Your task to perform on an android device: turn off improve location accuracy Image 0: 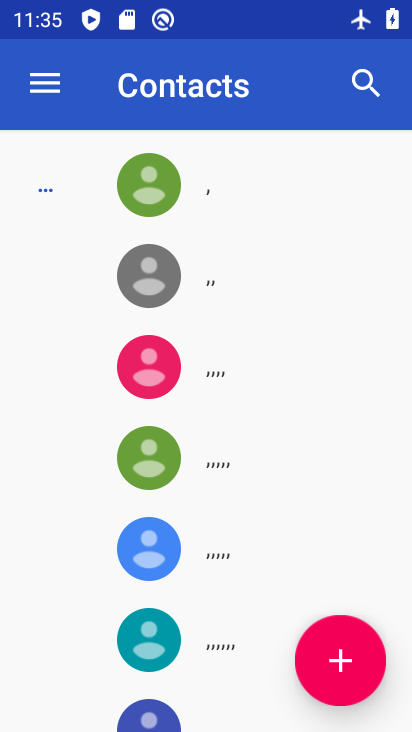
Step 0: press home button
Your task to perform on an android device: turn off improve location accuracy Image 1: 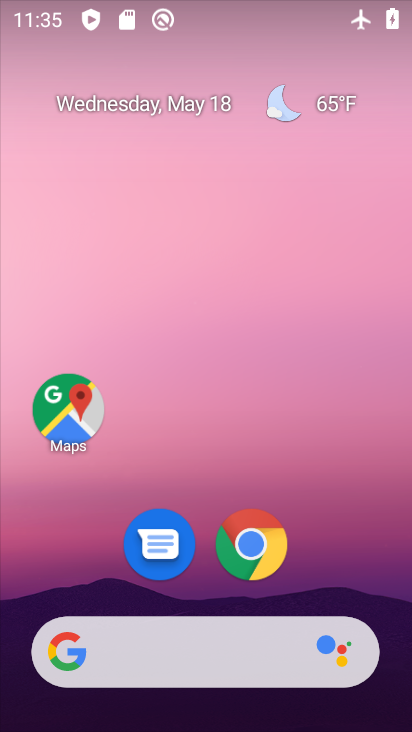
Step 1: drag from (362, 590) to (331, 71)
Your task to perform on an android device: turn off improve location accuracy Image 2: 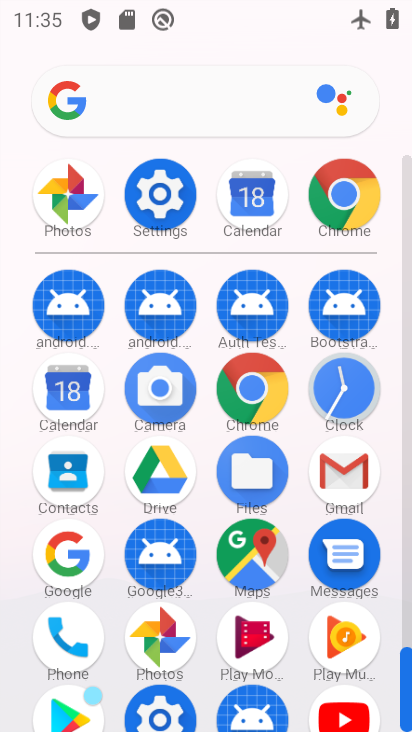
Step 2: click (166, 206)
Your task to perform on an android device: turn off improve location accuracy Image 3: 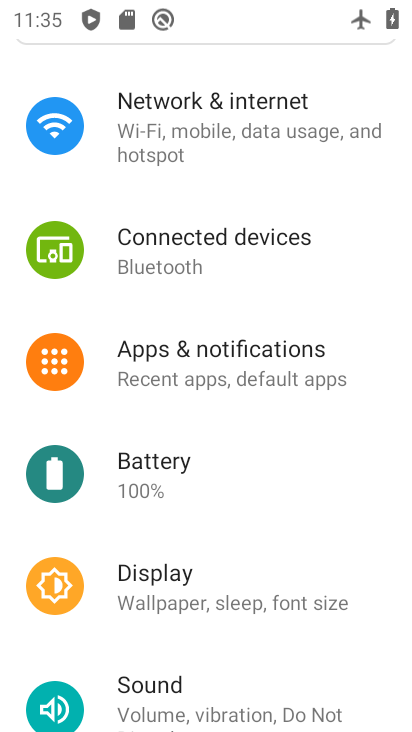
Step 3: drag from (382, 563) to (370, 335)
Your task to perform on an android device: turn off improve location accuracy Image 4: 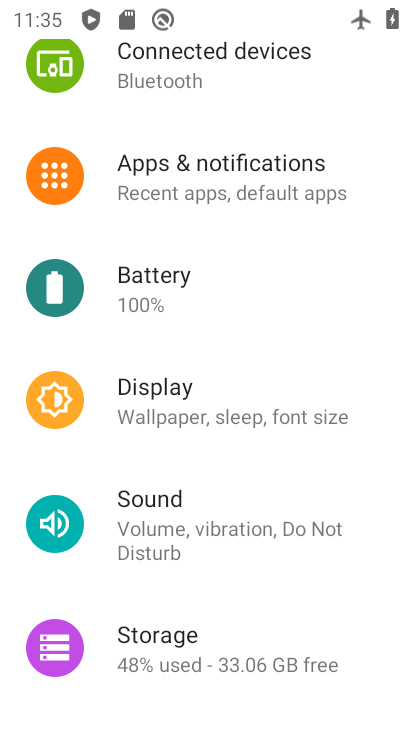
Step 4: drag from (350, 599) to (349, 357)
Your task to perform on an android device: turn off improve location accuracy Image 5: 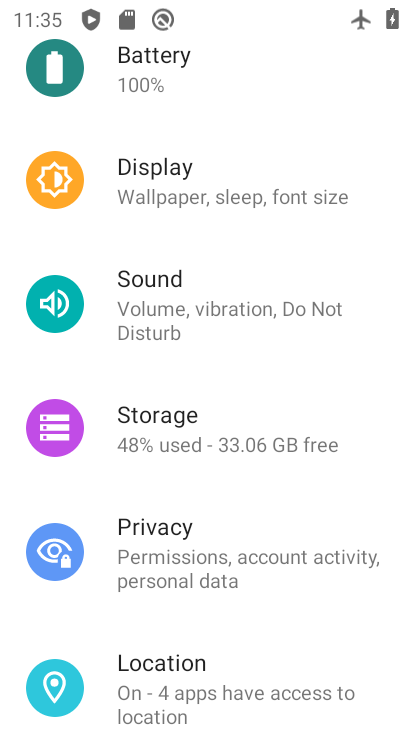
Step 5: drag from (338, 625) to (352, 464)
Your task to perform on an android device: turn off improve location accuracy Image 6: 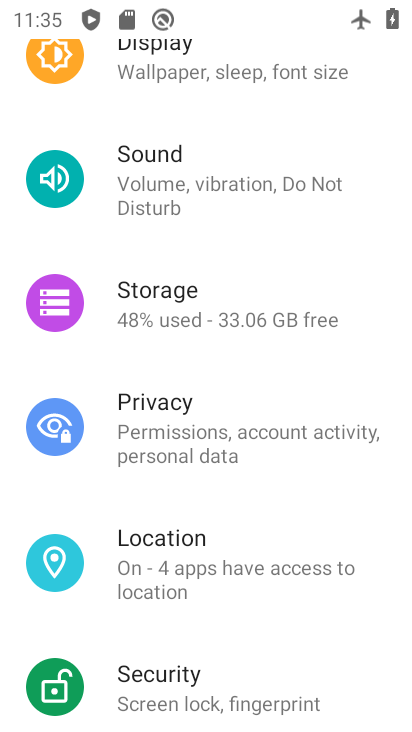
Step 6: drag from (359, 657) to (366, 448)
Your task to perform on an android device: turn off improve location accuracy Image 7: 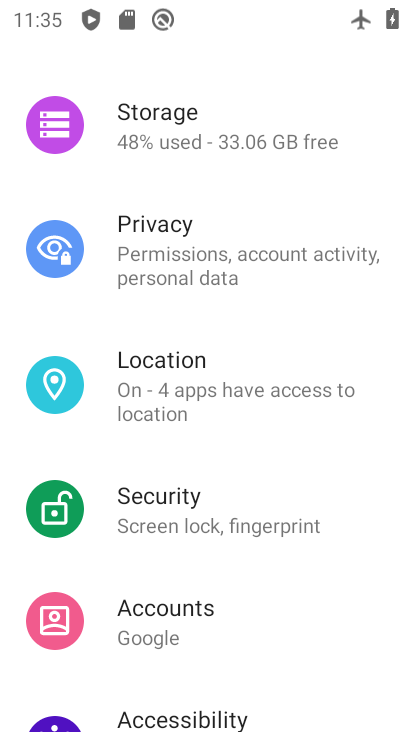
Step 7: click (320, 381)
Your task to perform on an android device: turn off improve location accuracy Image 8: 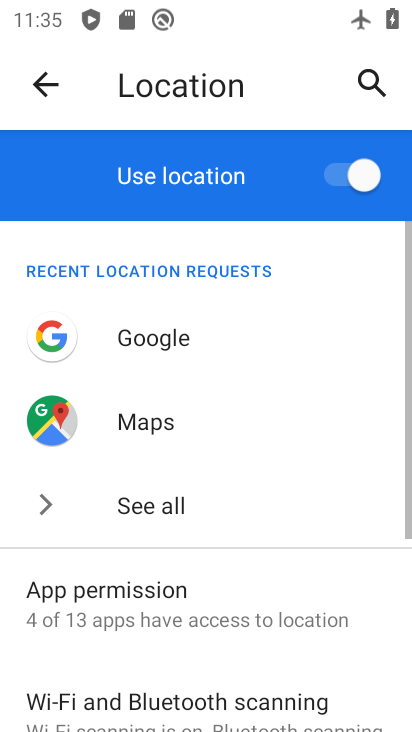
Step 8: drag from (334, 591) to (338, 437)
Your task to perform on an android device: turn off improve location accuracy Image 9: 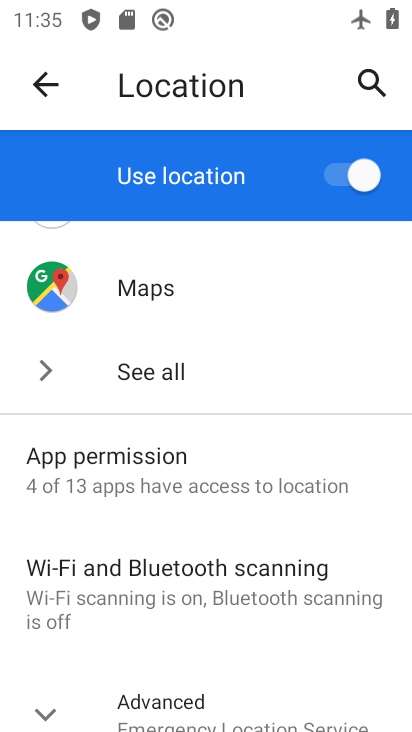
Step 9: drag from (346, 670) to (348, 482)
Your task to perform on an android device: turn off improve location accuracy Image 10: 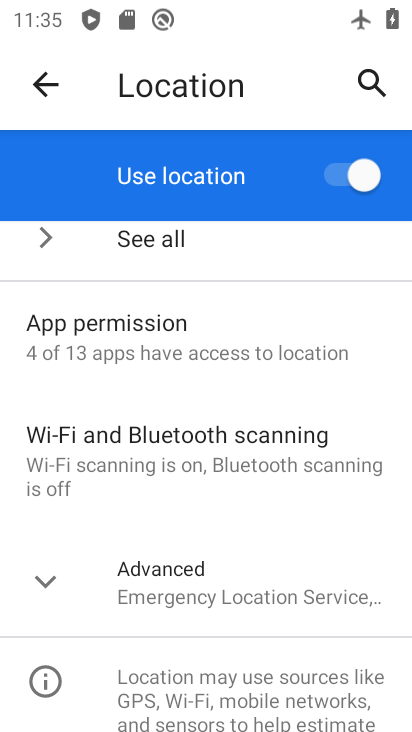
Step 10: click (309, 595)
Your task to perform on an android device: turn off improve location accuracy Image 11: 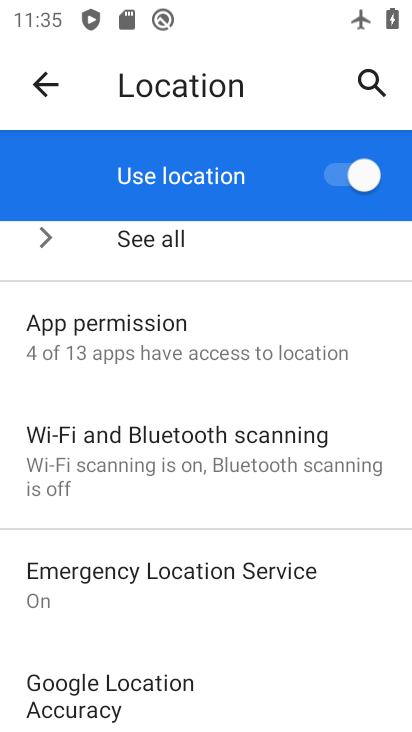
Step 11: drag from (305, 676) to (329, 535)
Your task to perform on an android device: turn off improve location accuracy Image 12: 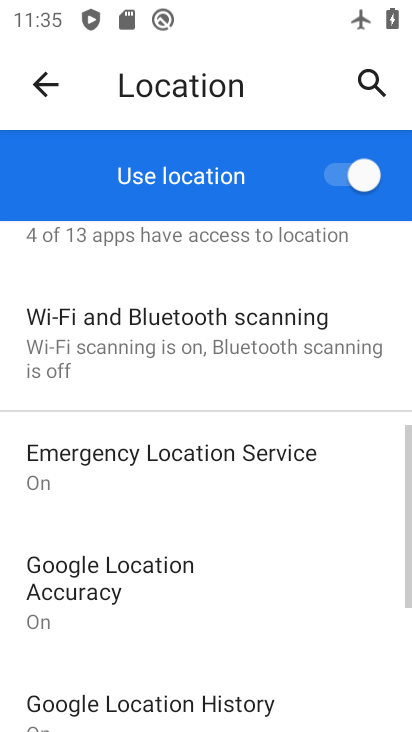
Step 12: drag from (311, 673) to (313, 497)
Your task to perform on an android device: turn off improve location accuracy Image 13: 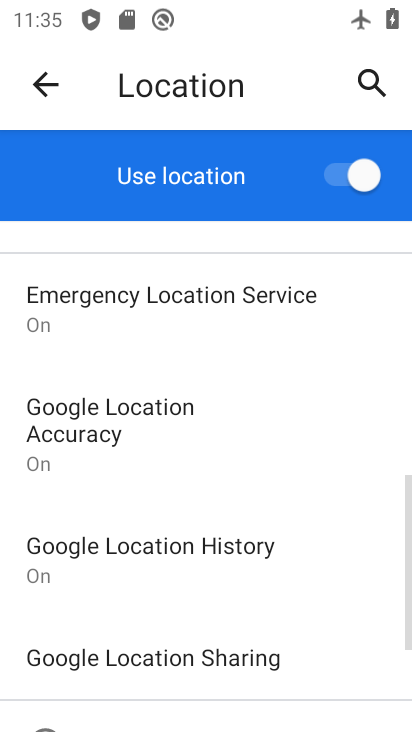
Step 13: drag from (321, 681) to (337, 544)
Your task to perform on an android device: turn off improve location accuracy Image 14: 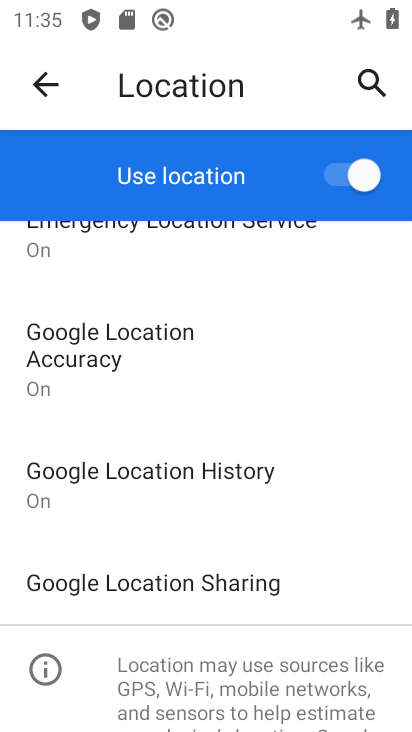
Step 14: click (86, 369)
Your task to perform on an android device: turn off improve location accuracy Image 15: 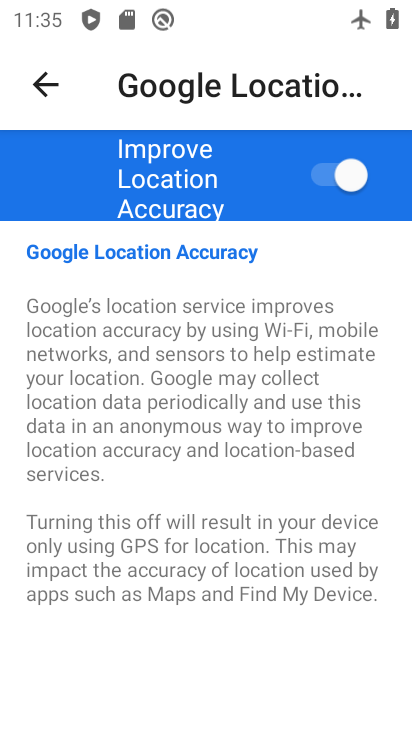
Step 15: click (335, 180)
Your task to perform on an android device: turn off improve location accuracy Image 16: 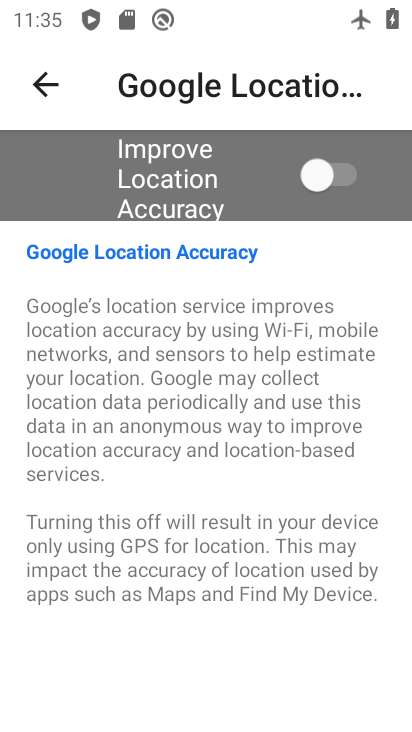
Step 16: task complete